Your task to perform on an android device: change the clock display to show seconds Image 0: 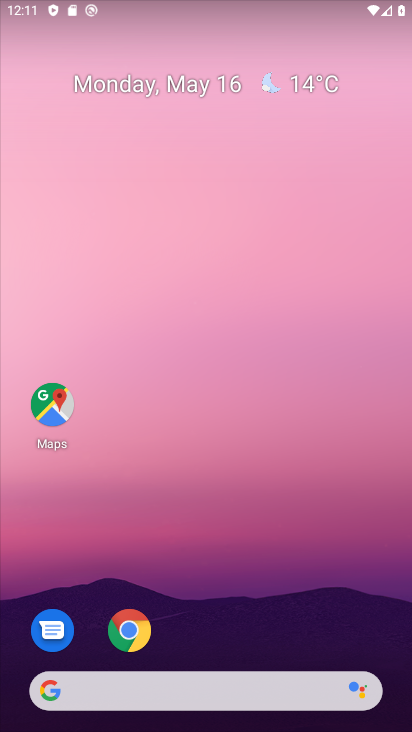
Step 0: drag from (241, 613) to (227, 149)
Your task to perform on an android device: change the clock display to show seconds Image 1: 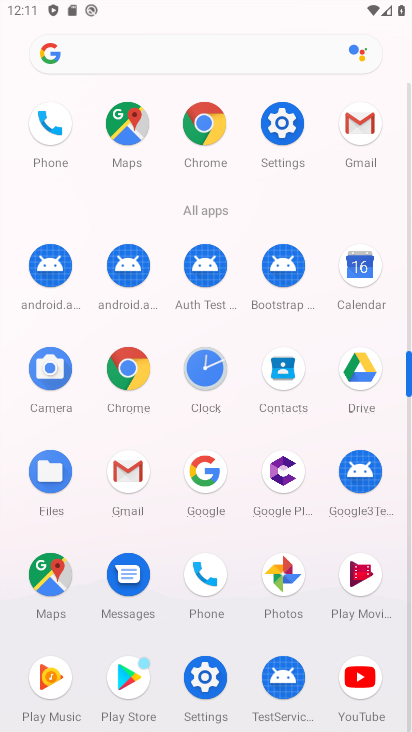
Step 1: click (210, 380)
Your task to perform on an android device: change the clock display to show seconds Image 2: 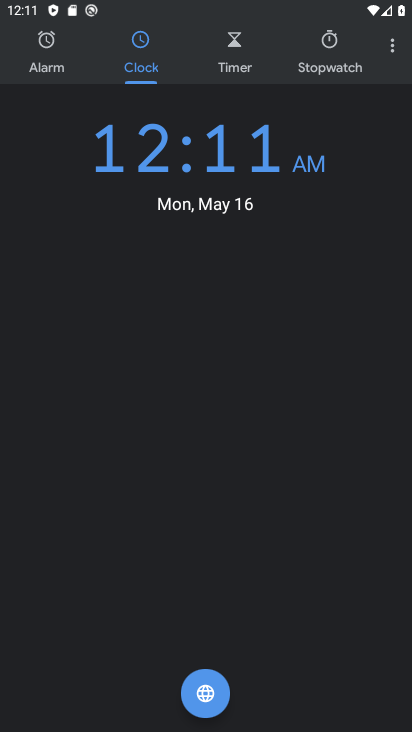
Step 2: click (394, 55)
Your task to perform on an android device: change the clock display to show seconds Image 3: 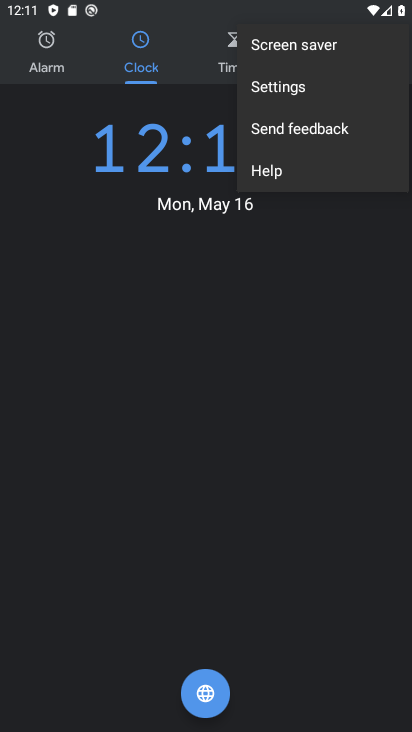
Step 3: click (304, 88)
Your task to perform on an android device: change the clock display to show seconds Image 4: 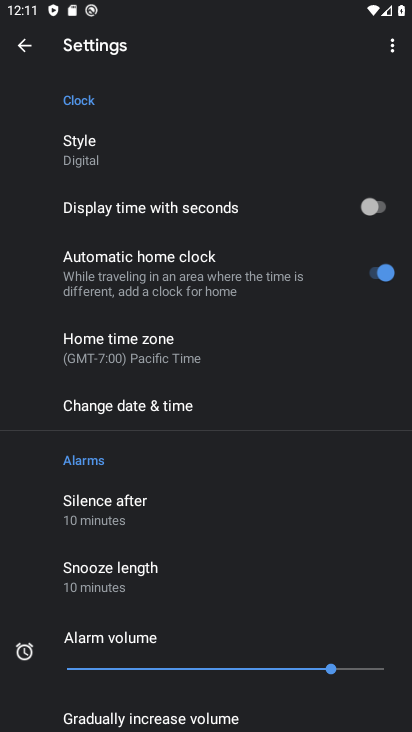
Step 4: click (377, 212)
Your task to perform on an android device: change the clock display to show seconds Image 5: 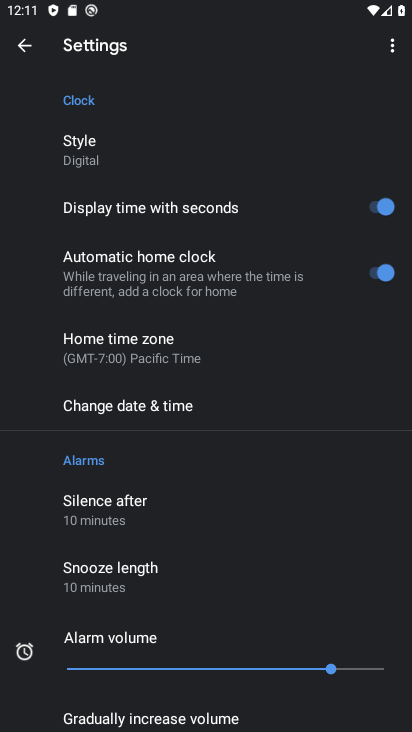
Step 5: task complete